Your task to perform on an android device: show emergency info Image 0: 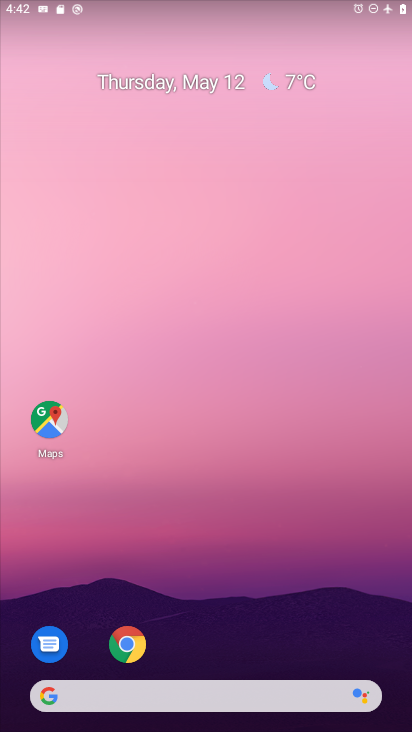
Step 0: drag from (245, 662) to (267, 438)
Your task to perform on an android device: show emergency info Image 1: 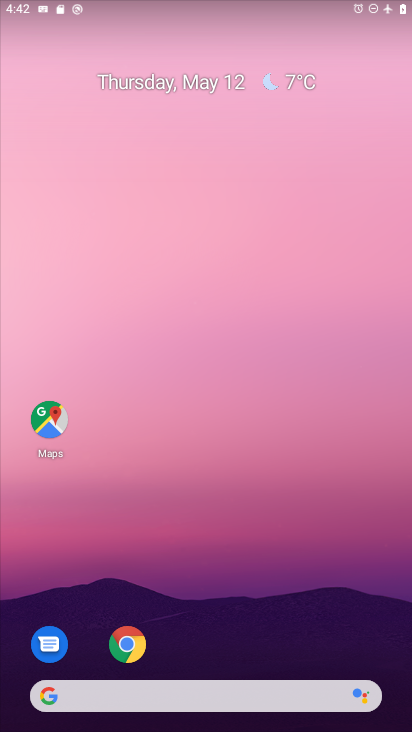
Step 1: drag from (219, 617) to (289, 316)
Your task to perform on an android device: show emergency info Image 2: 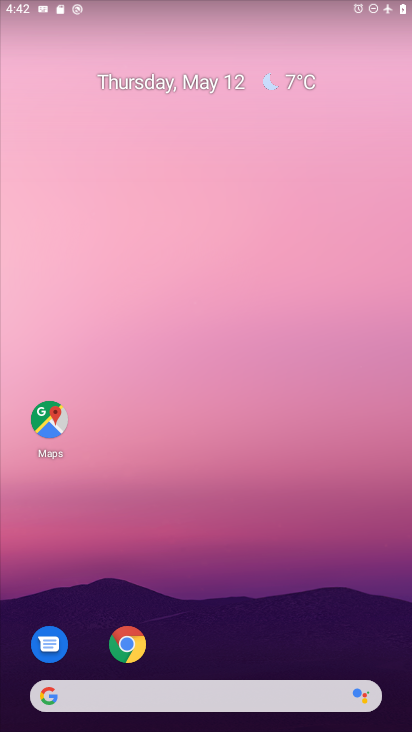
Step 2: drag from (215, 668) to (271, 391)
Your task to perform on an android device: show emergency info Image 3: 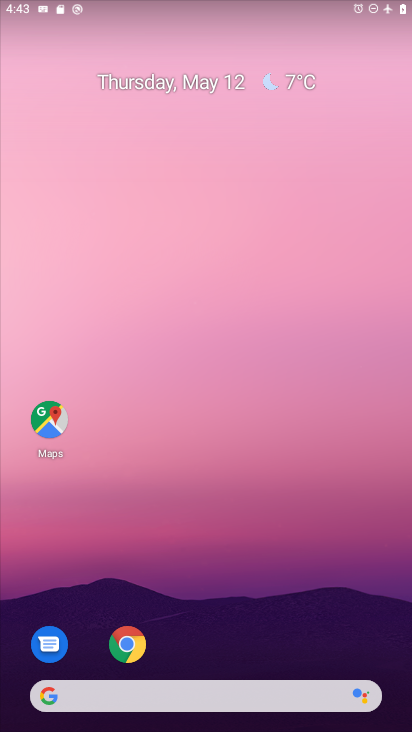
Step 3: drag from (184, 649) to (291, 16)
Your task to perform on an android device: show emergency info Image 4: 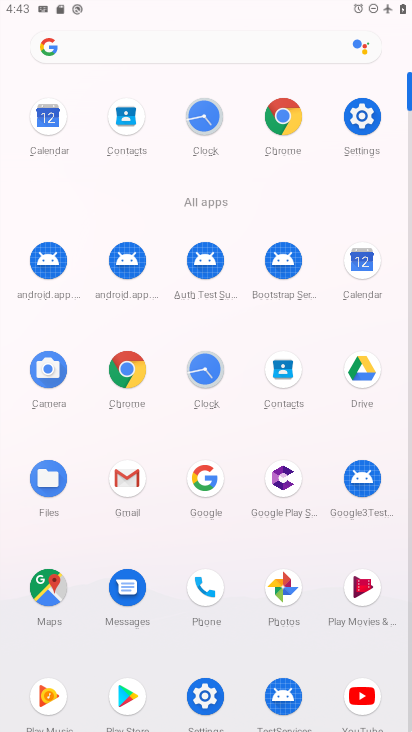
Step 4: click (358, 122)
Your task to perform on an android device: show emergency info Image 5: 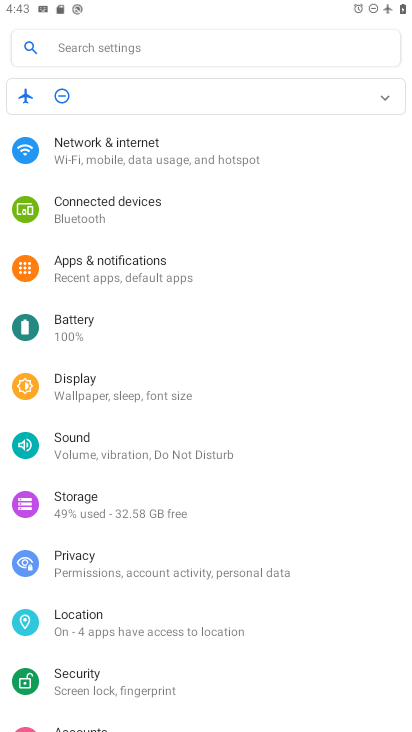
Step 5: drag from (196, 551) to (301, 90)
Your task to perform on an android device: show emergency info Image 6: 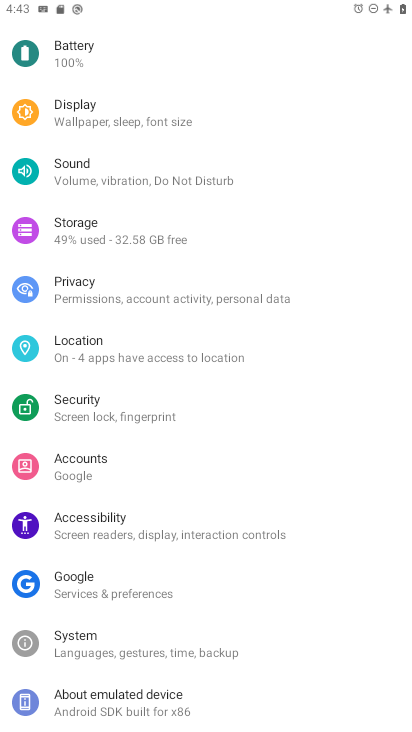
Step 6: click (109, 698)
Your task to perform on an android device: show emergency info Image 7: 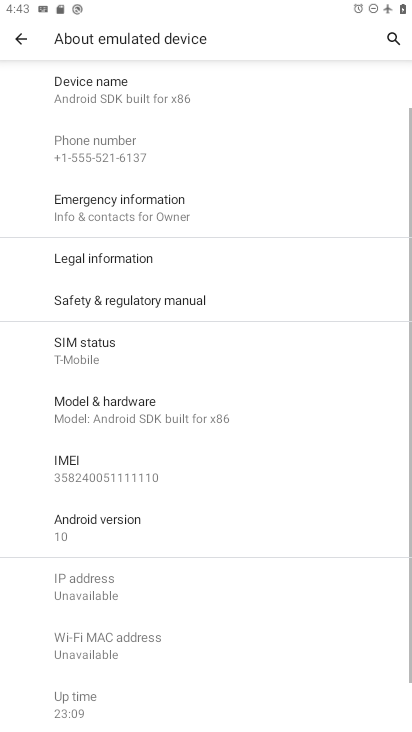
Step 7: click (151, 216)
Your task to perform on an android device: show emergency info Image 8: 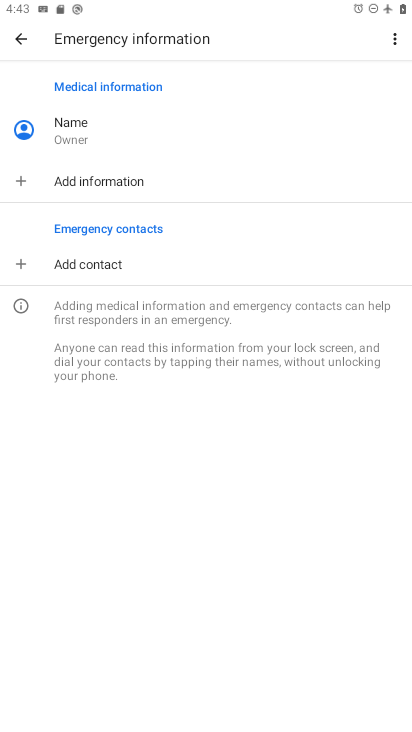
Step 8: task complete